Your task to perform on an android device: Go to privacy settings Image 0: 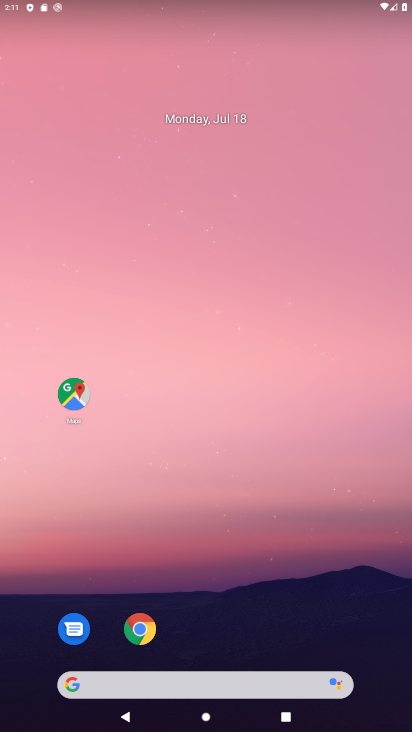
Step 0: drag from (201, 627) to (230, 189)
Your task to perform on an android device: Go to privacy settings Image 1: 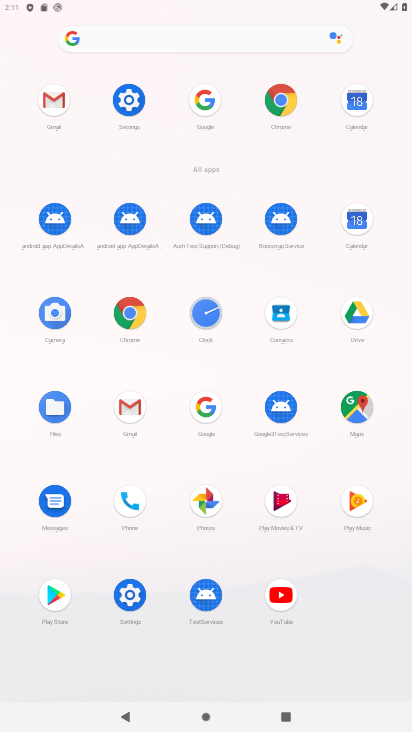
Step 1: click (142, 102)
Your task to perform on an android device: Go to privacy settings Image 2: 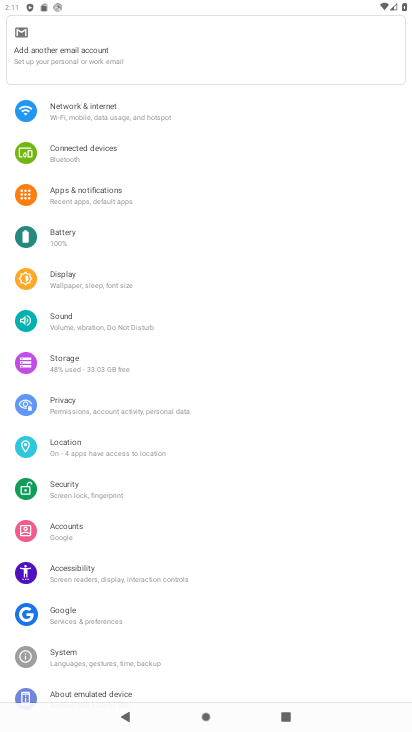
Step 2: click (136, 403)
Your task to perform on an android device: Go to privacy settings Image 3: 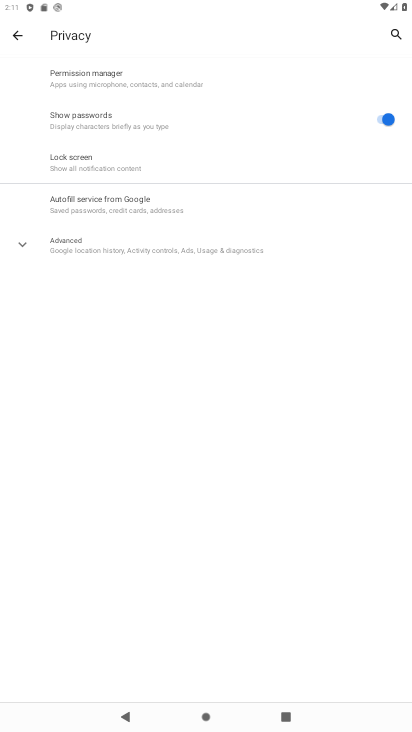
Step 3: task complete